Your task to perform on an android device: turn on airplane mode Image 0: 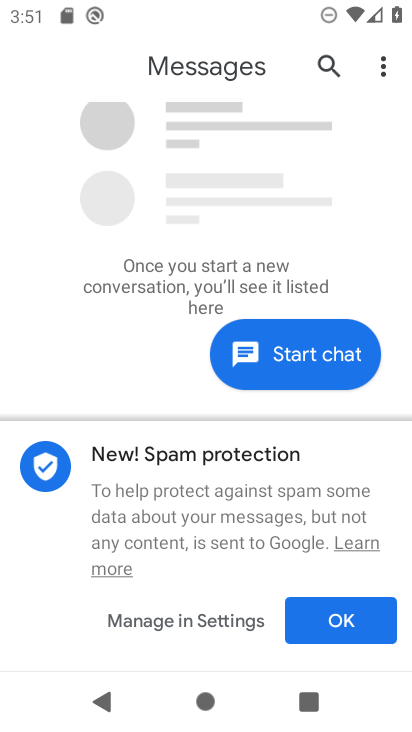
Step 0: press home button
Your task to perform on an android device: turn on airplane mode Image 1: 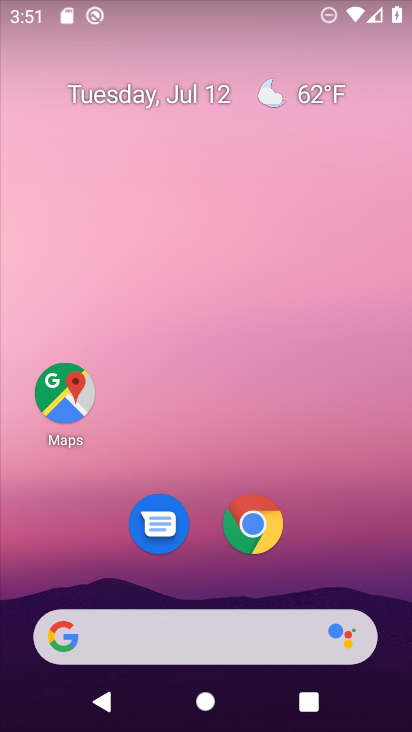
Step 1: drag from (328, 563) to (293, 44)
Your task to perform on an android device: turn on airplane mode Image 2: 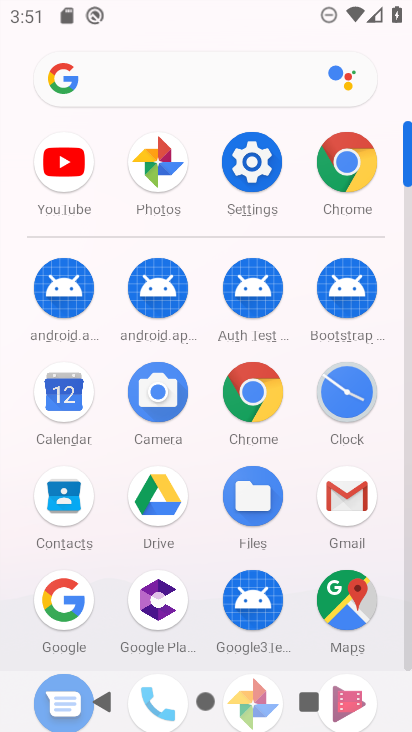
Step 2: click (266, 173)
Your task to perform on an android device: turn on airplane mode Image 3: 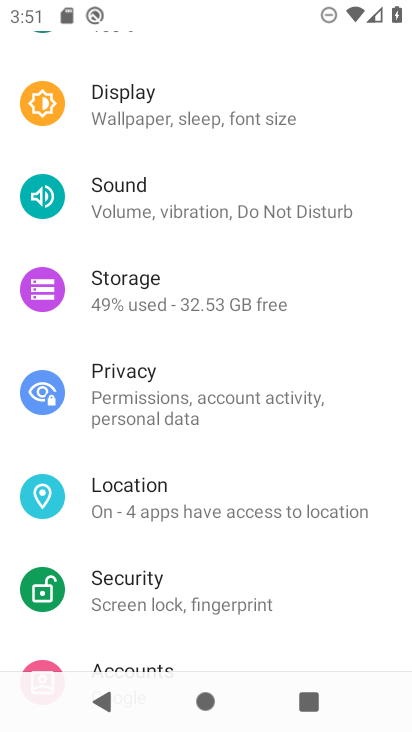
Step 3: drag from (280, 207) to (293, 610)
Your task to perform on an android device: turn on airplane mode Image 4: 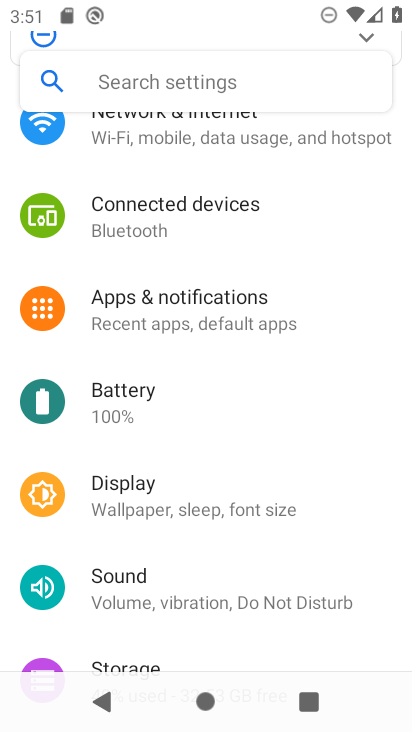
Step 4: drag from (267, 265) to (264, 558)
Your task to perform on an android device: turn on airplane mode Image 5: 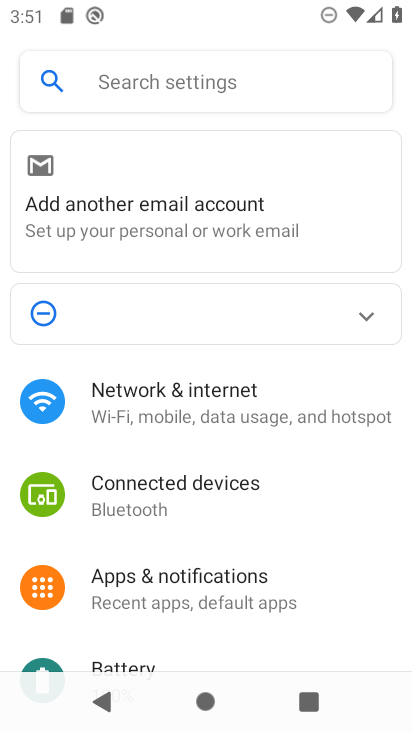
Step 5: click (265, 405)
Your task to perform on an android device: turn on airplane mode Image 6: 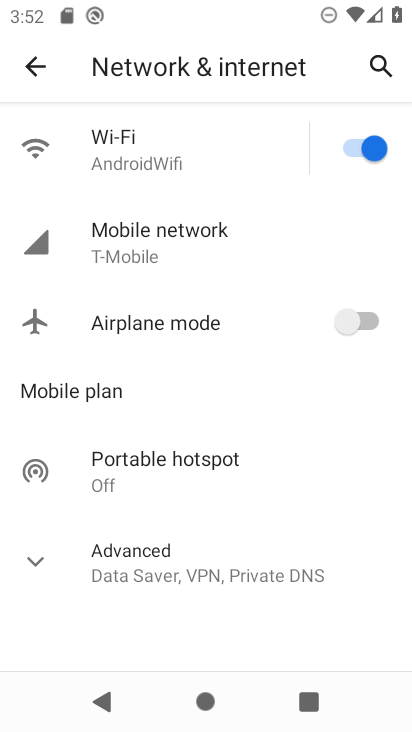
Step 6: click (356, 316)
Your task to perform on an android device: turn on airplane mode Image 7: 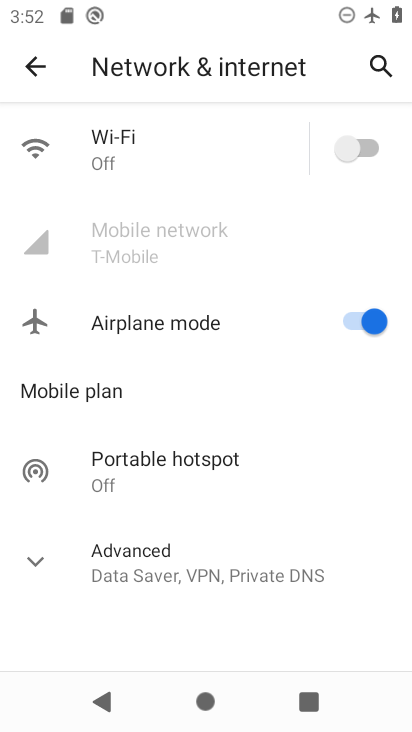
Step 7: task complete